Your task to perform on an android device: change the upload size in google photos Image 0: 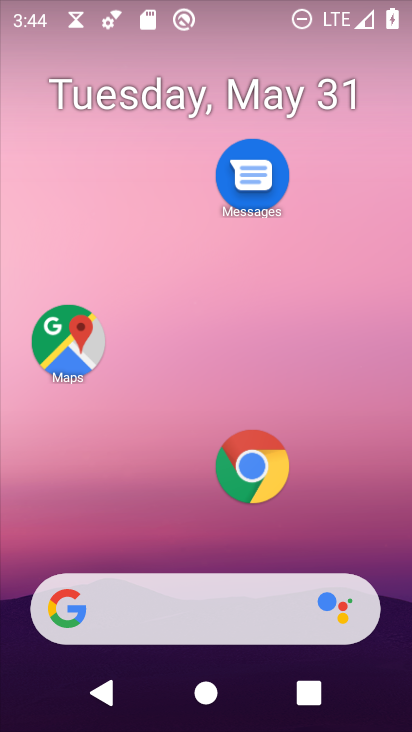
Step 0: drag from (147, 546) to (209, 96)
Your task to perform on an android device: change the upload size in google photos Image 1: 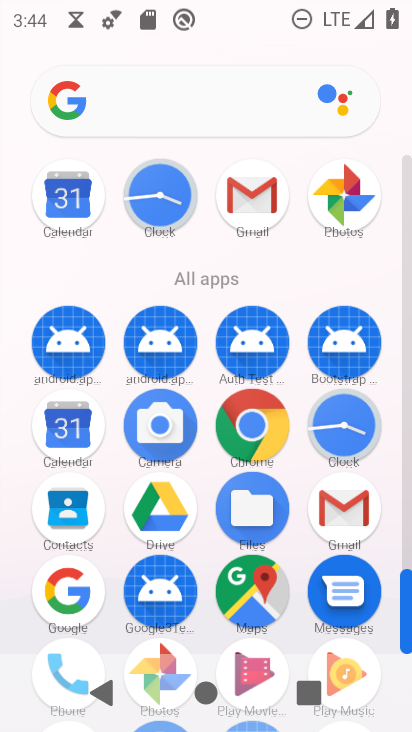
Step 1: drag from (179, 586) to (226, 375)
Your task to perform on an android device: change the upload size in google photos Image 2: 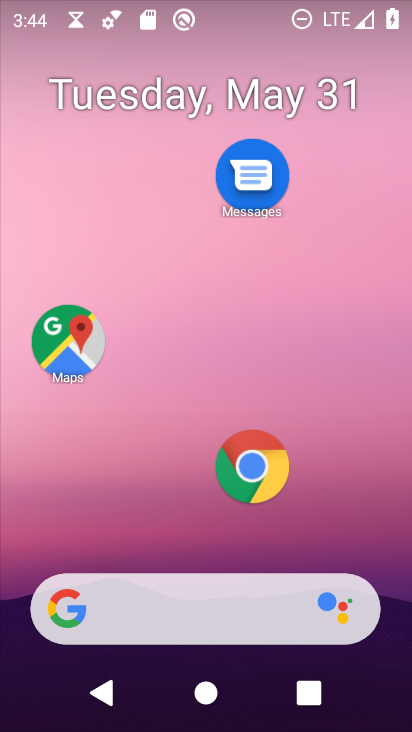
Step 2: drag from (138, 564) to (204, 67)
Your task to perform on an android device: change the upload size in google photos Image 3: 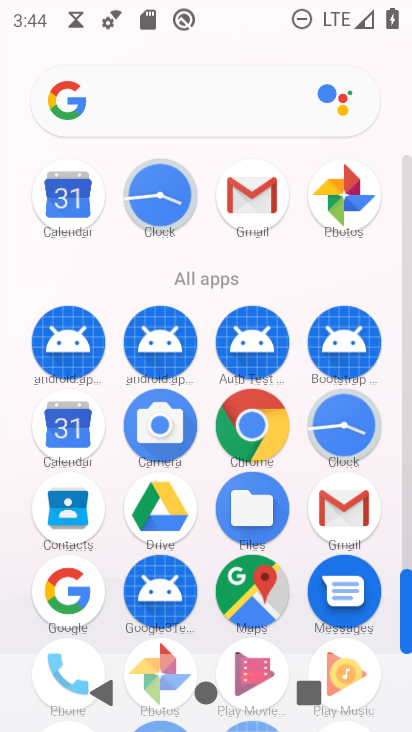
Step 3: click (344, 199)
Your task to perform on an android device: change the upload size in google photos Image 4: 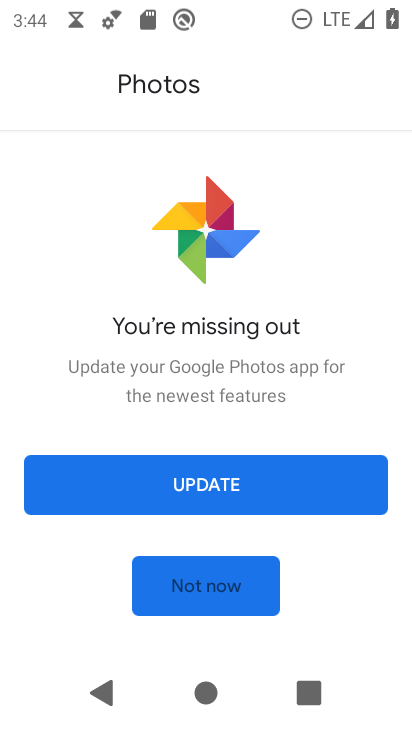
Step 4: click (189, 581)
Your task to perform on an android device: change the upload size in google photos Image 5: 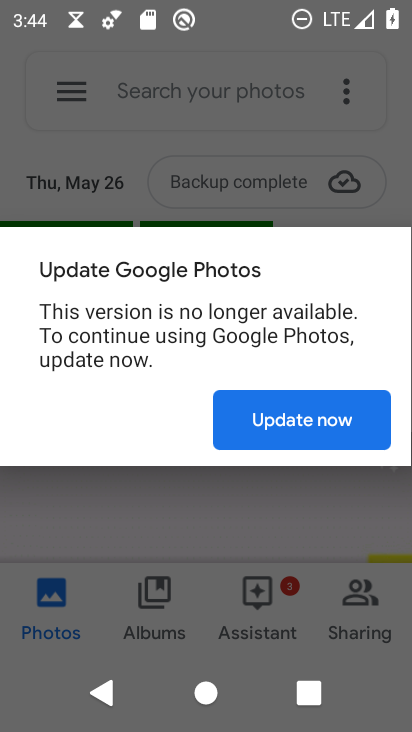
Step 5: click (305, 423)
Your task to perform on an android device: change the upload size in google photos Image 6: 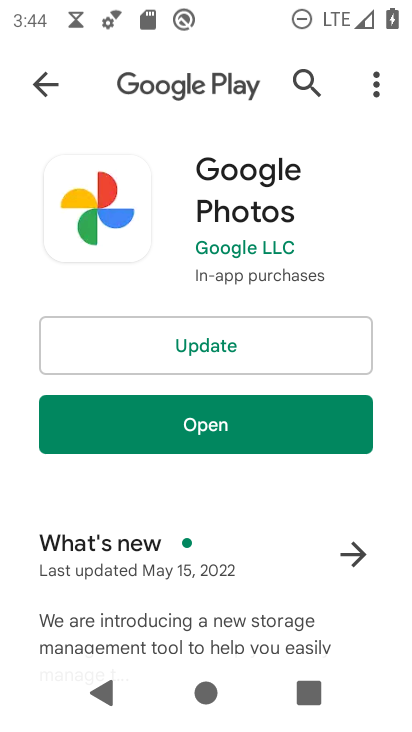
Step 6: click (236, 435)
Your task to perform on an android device: change the upload size in google photos Image 7: 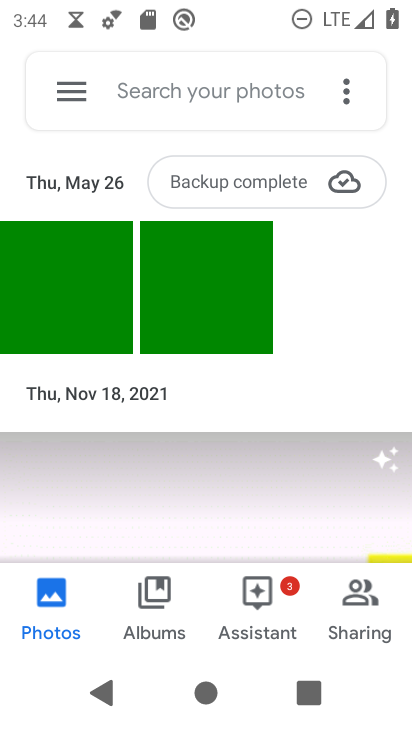
Step 7: click (50, 83)
Your task to perform on an android device: change the upload size in google photos Image 8: 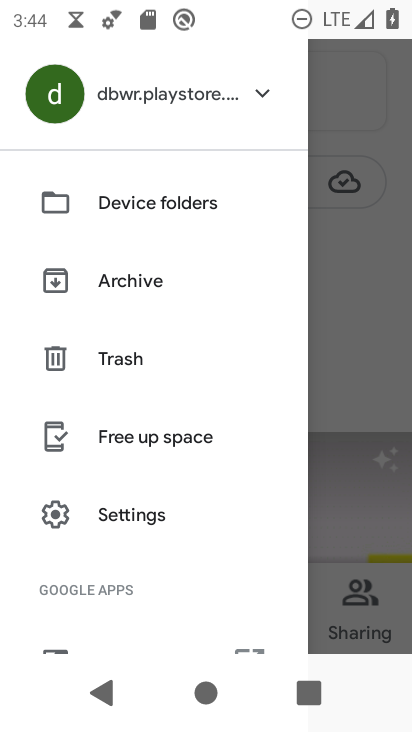
Step 8: click (122, 507)
Your task to perform on an android device: change the upload size in google photos Image 9: 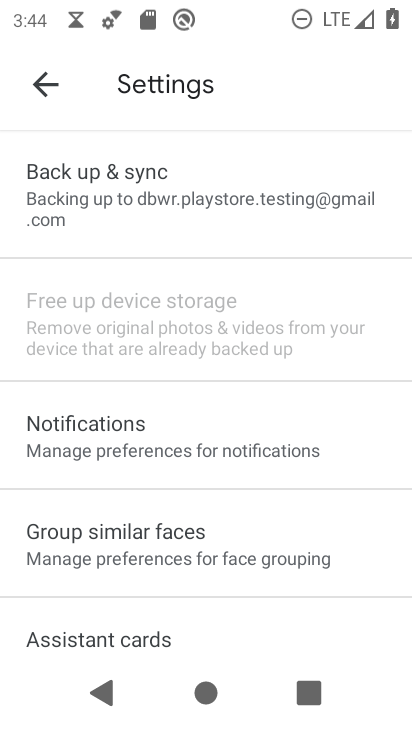
Step 9: click (124, 189)
Your task to perform on an android device: change the upload size in google photos Image 10: 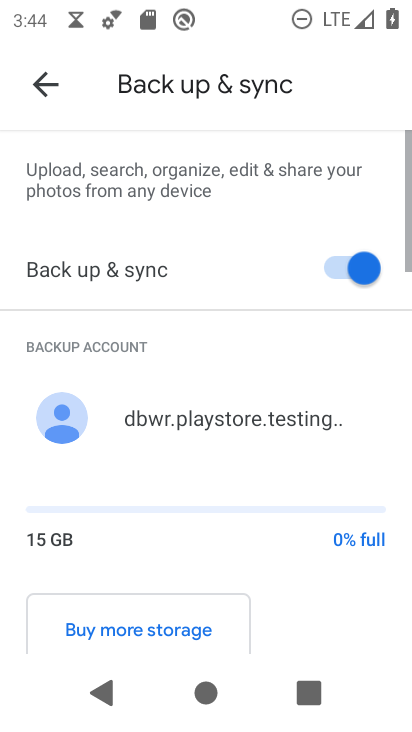
Step 10: drag from (156, 517) to (268, 68)
Your task to perform on an android device: change the upload size in google photos Image 11: 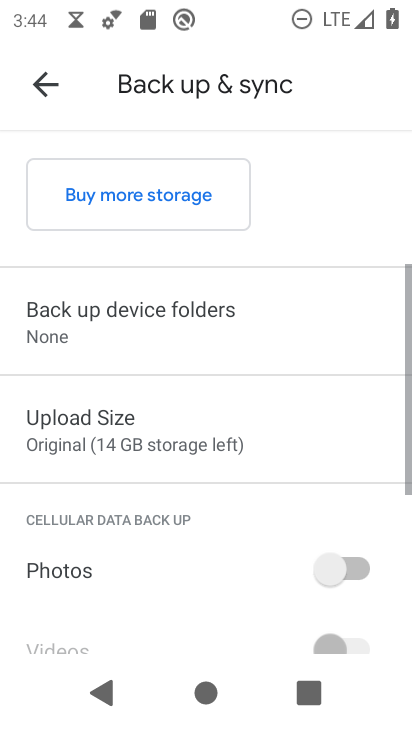
Step 11: drag from (223, 553) to (270, 306)
Your task to perform on an android device: change the upload size in google photos Image 12: 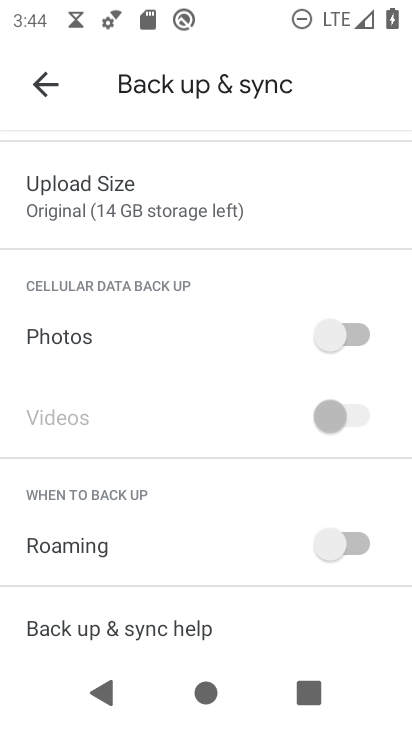
Step 12: click (118, 206)
Your task to perform on an android device: change the upload size in google photos Image 13: 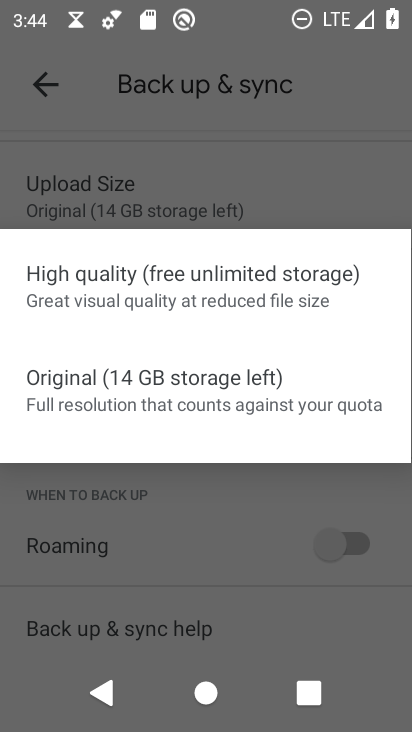
Step 13: click (104, 296)
Your task to perform on an android device: change the upload size in google photos Image 14: 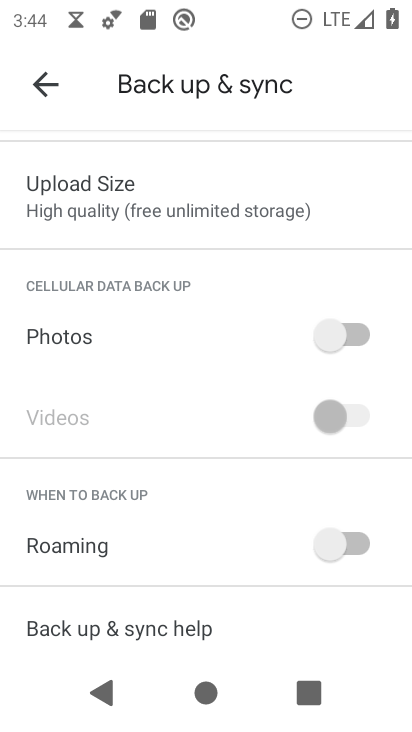
Step 14: task complete